Your task to perform on an android device: refresh tabs in the chrome app Image 0: 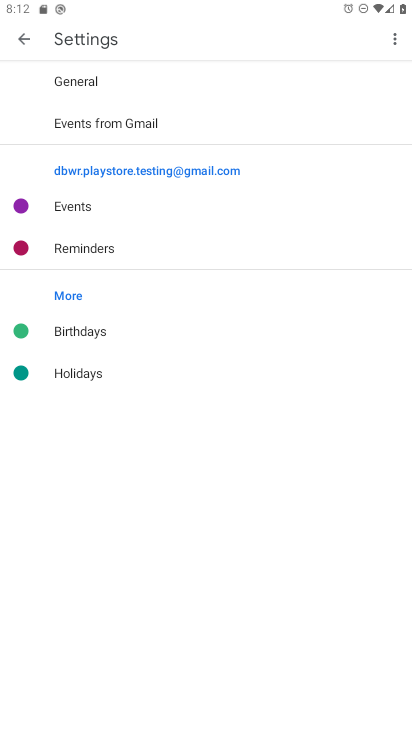
Step 0: press home button
Your task to perform on an android device: refresh tabs in the chrome app Image 1: 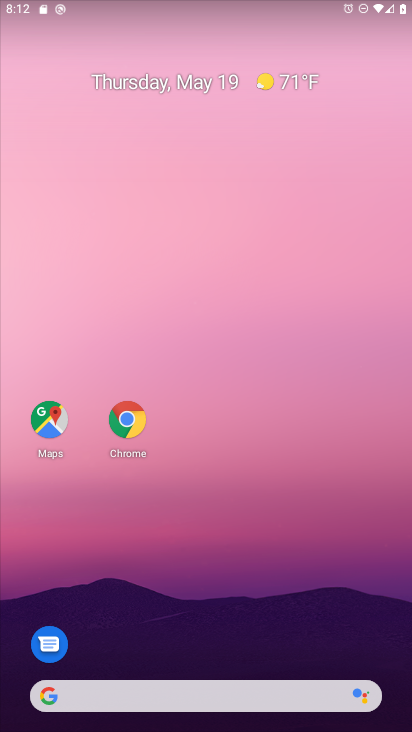
Step 1: drag from (152, 688) to (201, 392)
Your task to perform on an android device: refresh tabs in the chrome app Image 2: 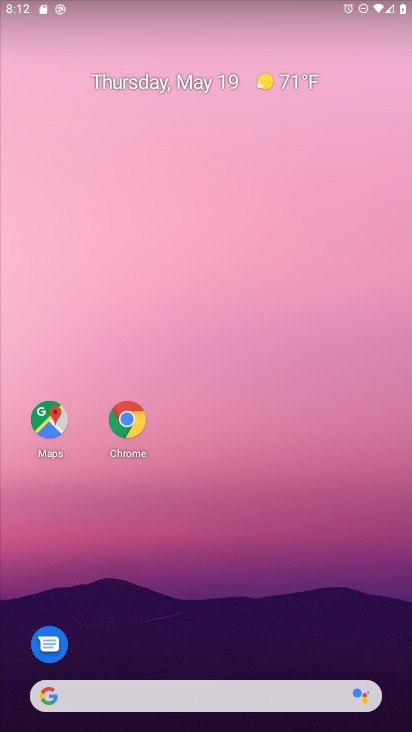
Step 2: click (136, 413)
Your task to perform on an android device: refresh tabs in the chrome app Image 3: 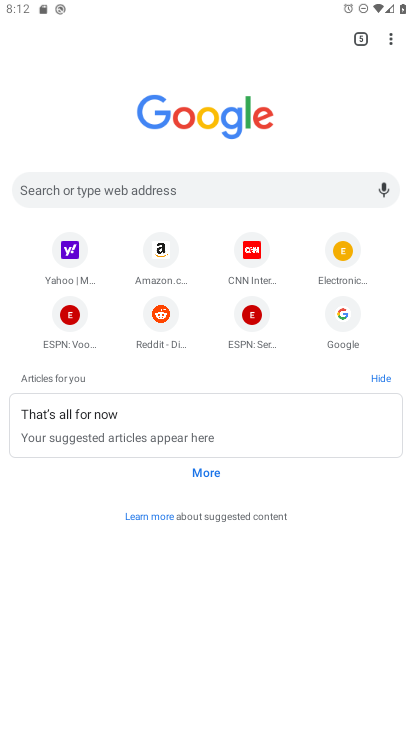
Step 3: click (388, 37)
Your task to perform on an android device: refresh tabs in the chrome app Image 4: 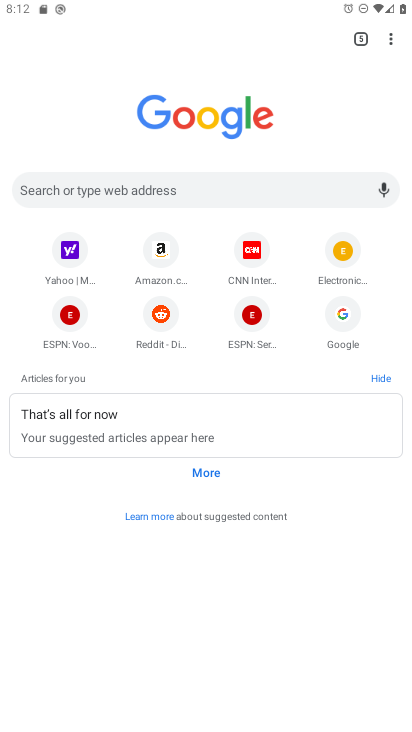
Step 4: click (392, 40)
Your task to perform on an android device: refresh tabs in the chrome app Image 5: 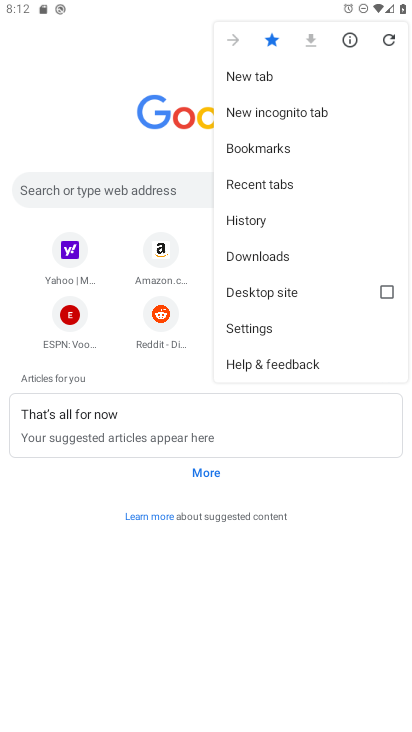
Step 5: click (393, 41)
Your task to perform on an android device: refresh tabs in the chrome app Image 6: 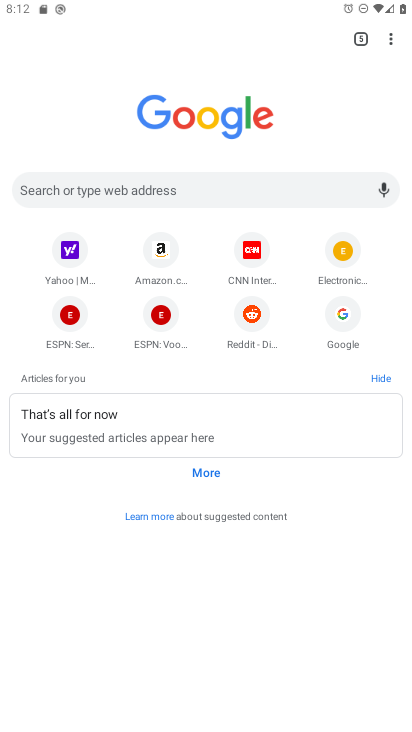
Step 6: task complete